Your task to perform on an android device: turn on priority inbox in the gmail app Image 0: 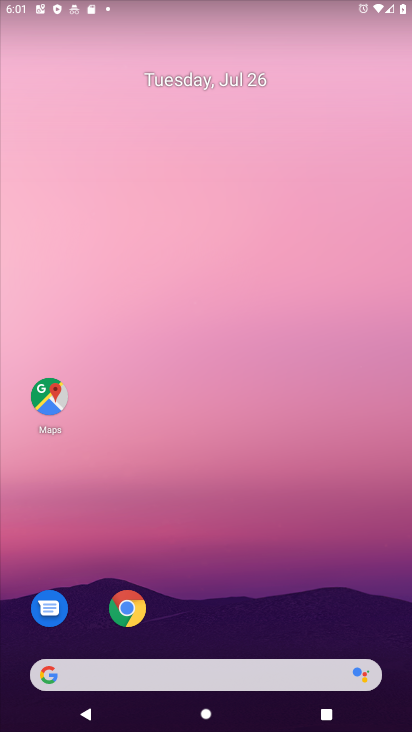
Step 0: press home button
Your task to perform on an android device: turn on priority inbox in the gmail app Image 1: 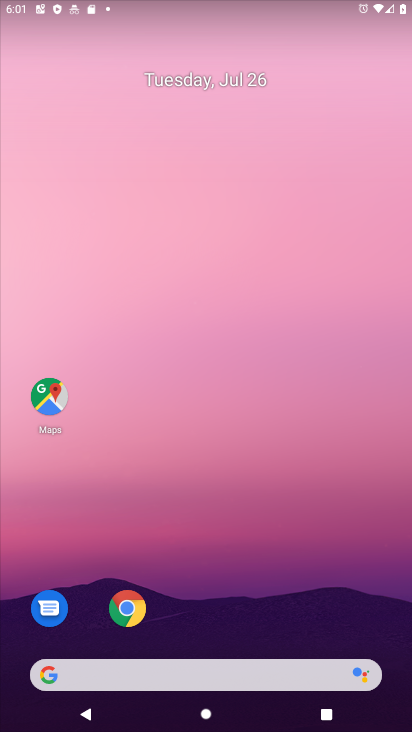
Step 1: drag from (223, 622) to (248, 165)
Your task to perform on an android device: turn on priority inbox in the gmail app Image 2: 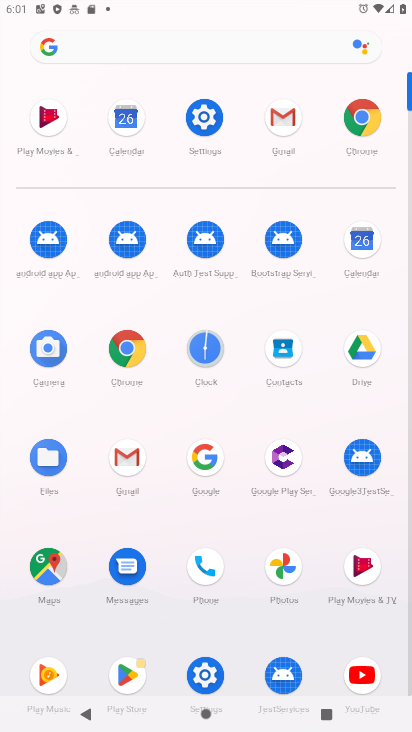
Step 2: click (287, 134)
Your task to perform on an android device: turn on priority inbox in the gmail app Image 3: 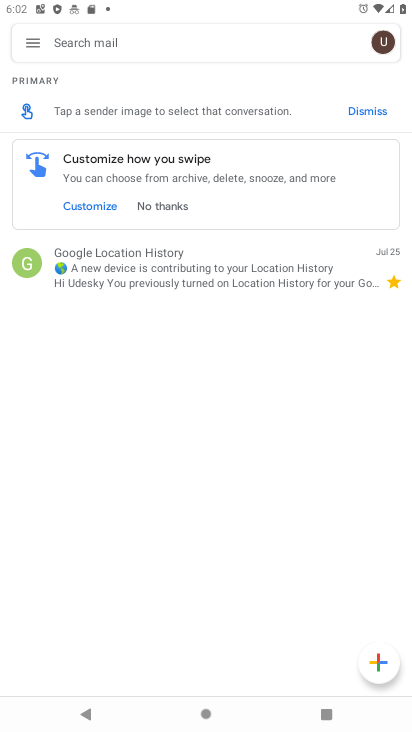
Step 3: click (34, 40)
Your task to perform on an android device: turn on priority inbox in the gmail app Image 4: 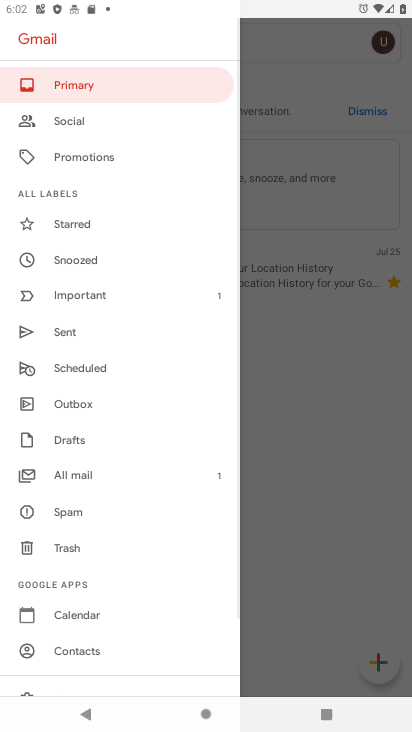
Step 4: drag from (155, 600) to (223, 117)
Your task to perform on an android device: turn on priority inbox in the gmail app Image 5: 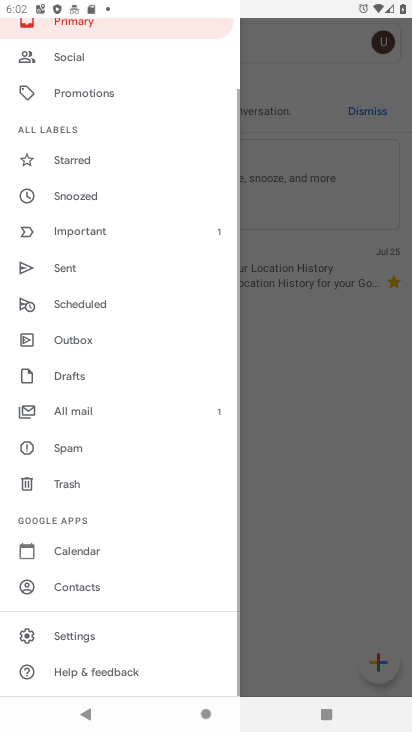
Step 5: click (89, 636)
Your task to perform on an android device: turn on priority inbox in the gmail app Image 6: 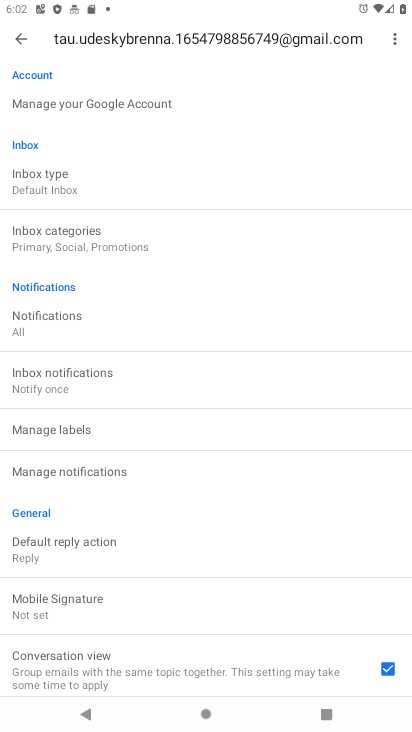
Step 6: click (32, 177)
Your task to perform on an android device: turn on priority inbox in the gmail app Image 7: 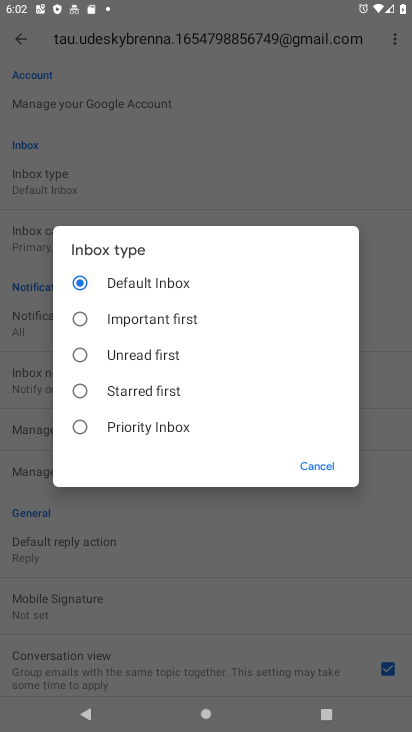
Step 7: click (85, 427)
Your task to perform on an android device: turn on priority inbox in the gmail app Image 8: 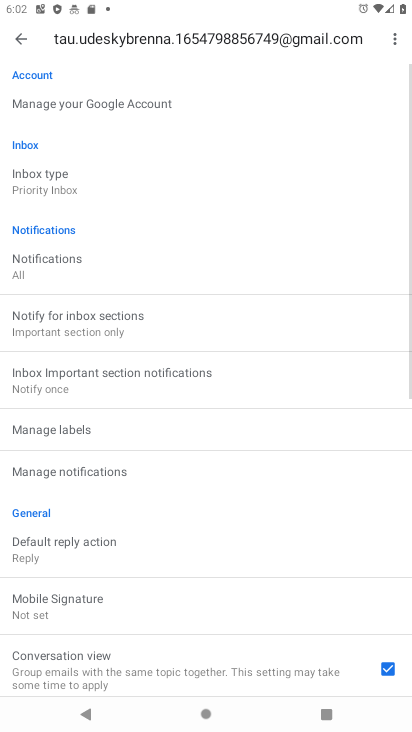
Step 8: task complete